Your task to perform on an android device: Search for the best rated mechanical keyboard on Amazon. Image 0: 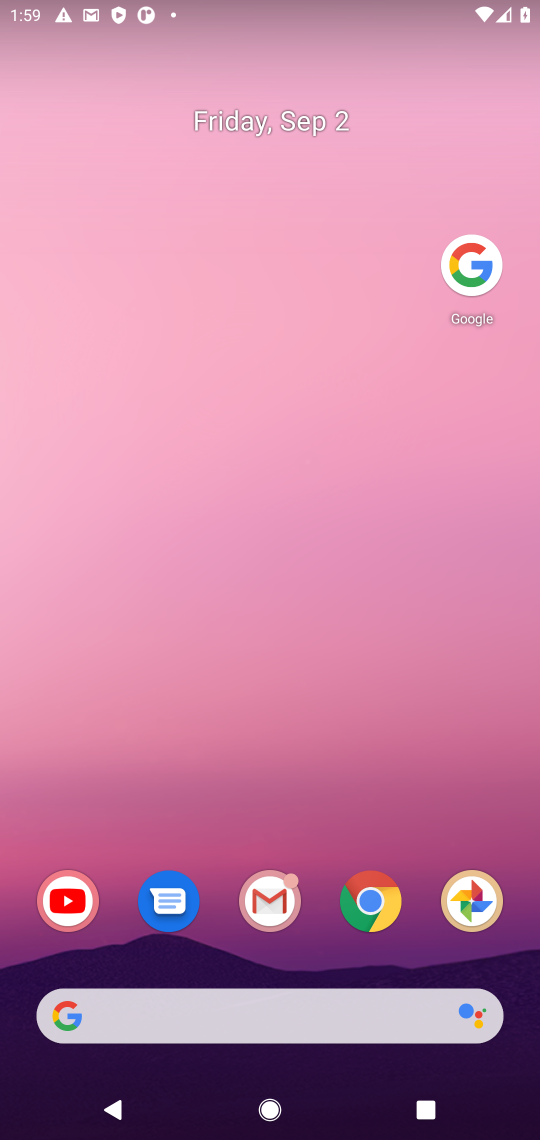
Step 0: drag from (317, 972) to (340, 256)
Your task to perform on an android device: Search for the best rated mechanical keyboard on Amazon. Image 1: 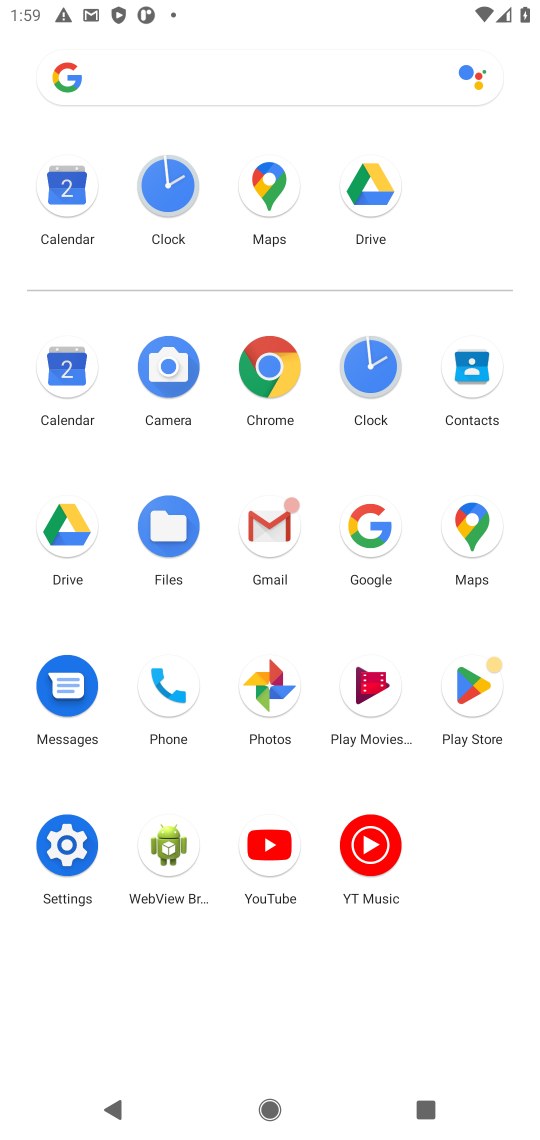
Step 1: click (376, 523)
Your task to perform on an android device: Search for the best rated mechanical keyboard on Amazon. Image 2: 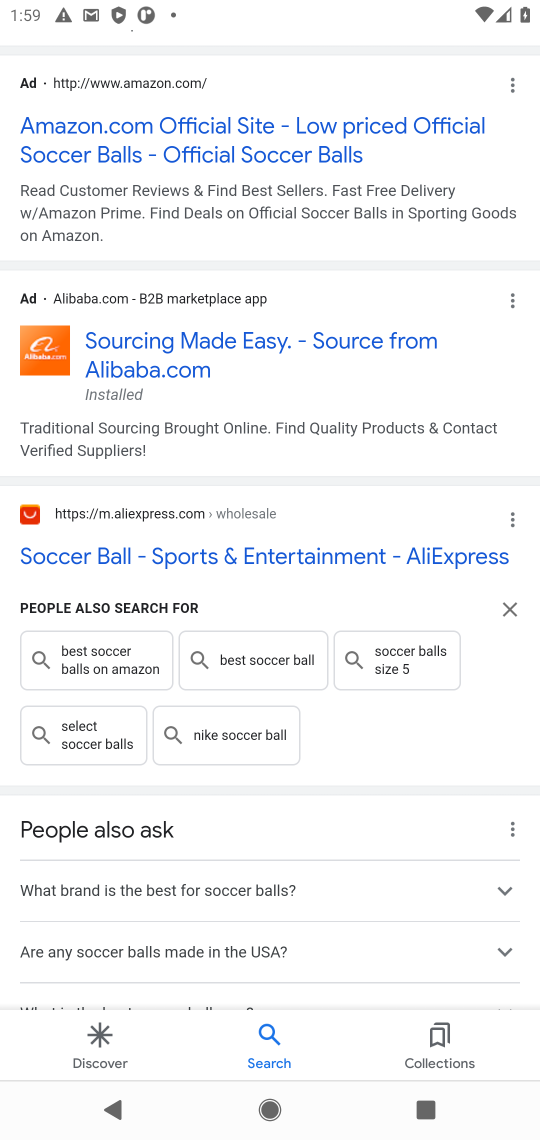
Step 2: press home button
Your task to perform on an android device: Search for the best rated mechanical keyboard on Amazon. Image 3: 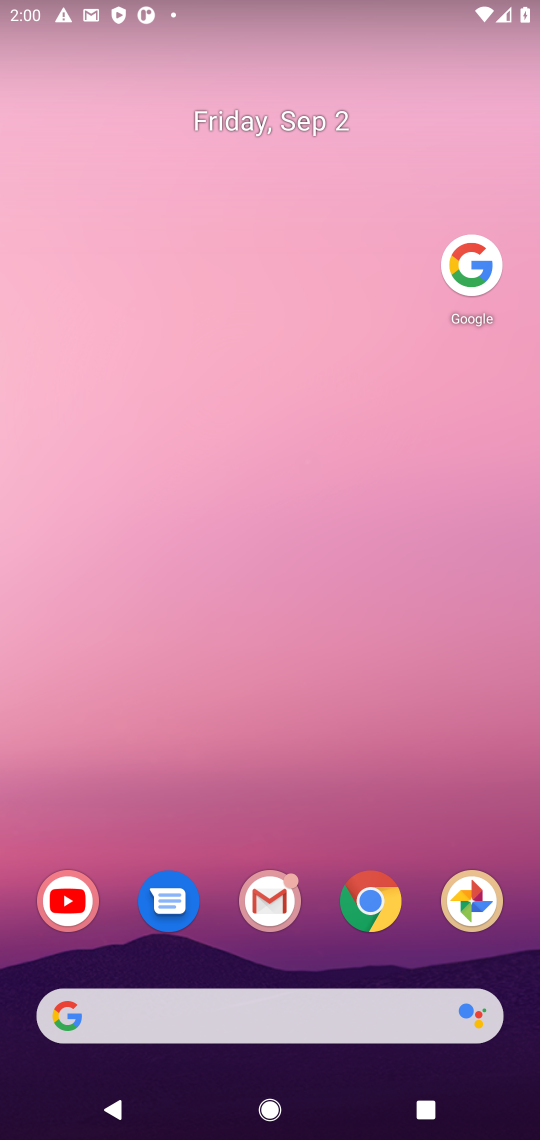
Step 3: click (220, 155)
Your task to perform on an android device: Search for the best rated mechanical keyboard on Amazon. Image 4: 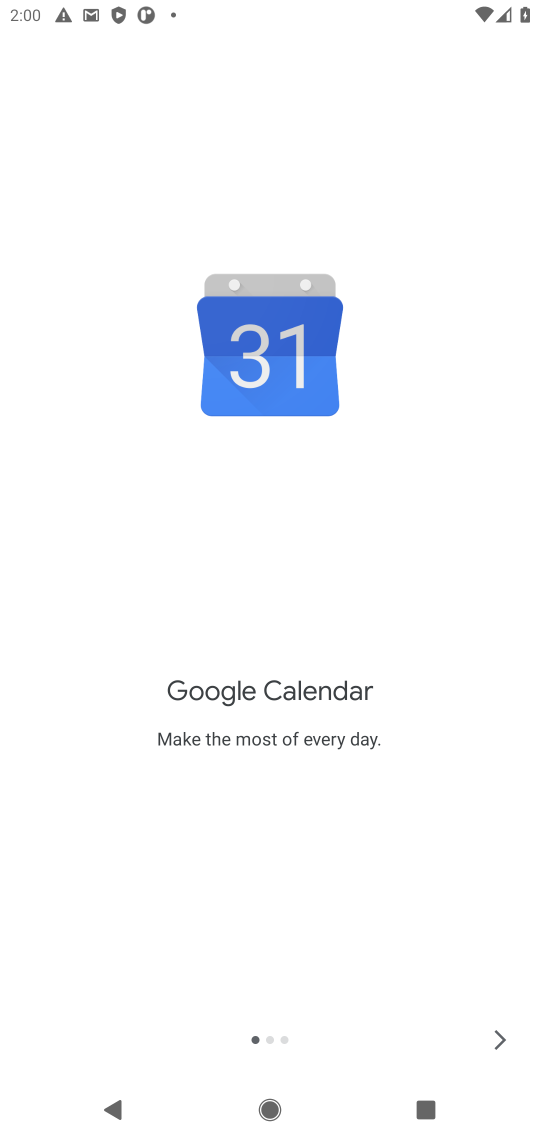
Step 4: press home button
Your task to perform on an android device: Search for the best rated mechanical keyboard on Amazon. Image 5: 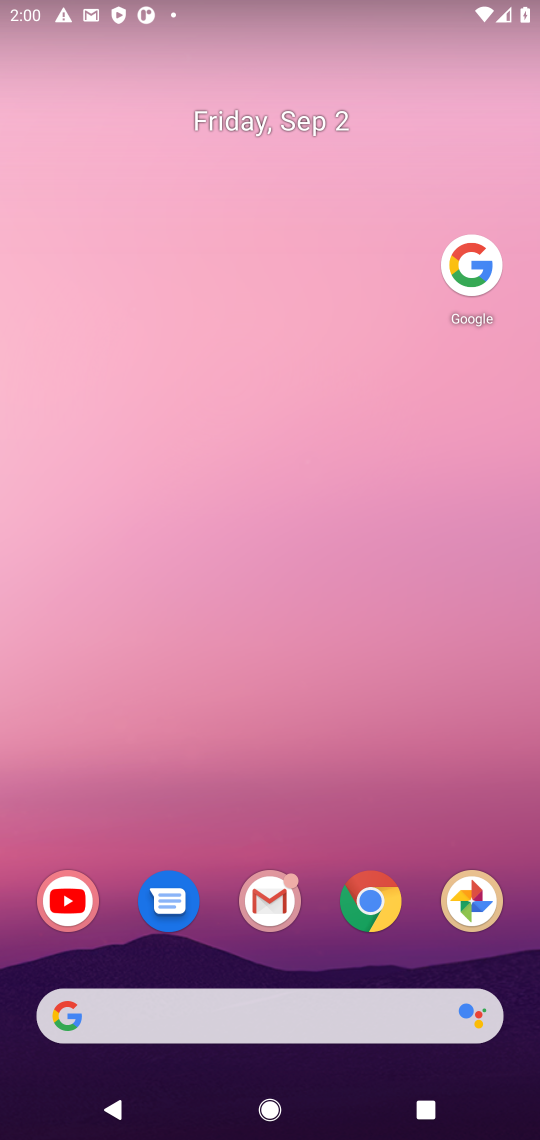
Step 5: drag from (230, 979) to (265, 220)
Your task to perform on an android device: Search for the best rated mechanical keyboard on Amazon. Image 6: 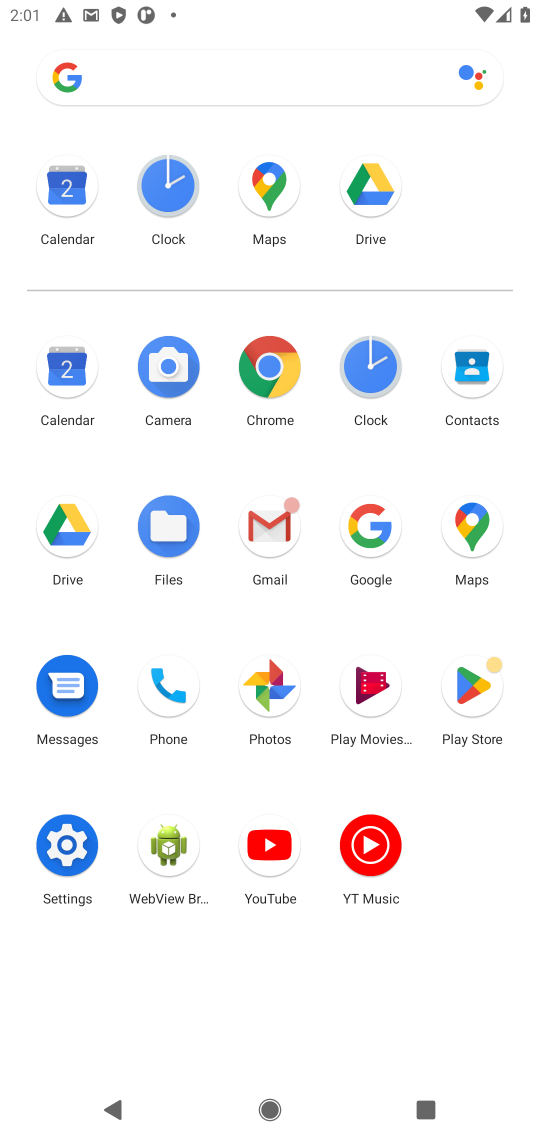
Step 6: click (358, 523)
Your task to perform on an android device: Search for the best rated mechanical keyboard on Amazon. Image 7: 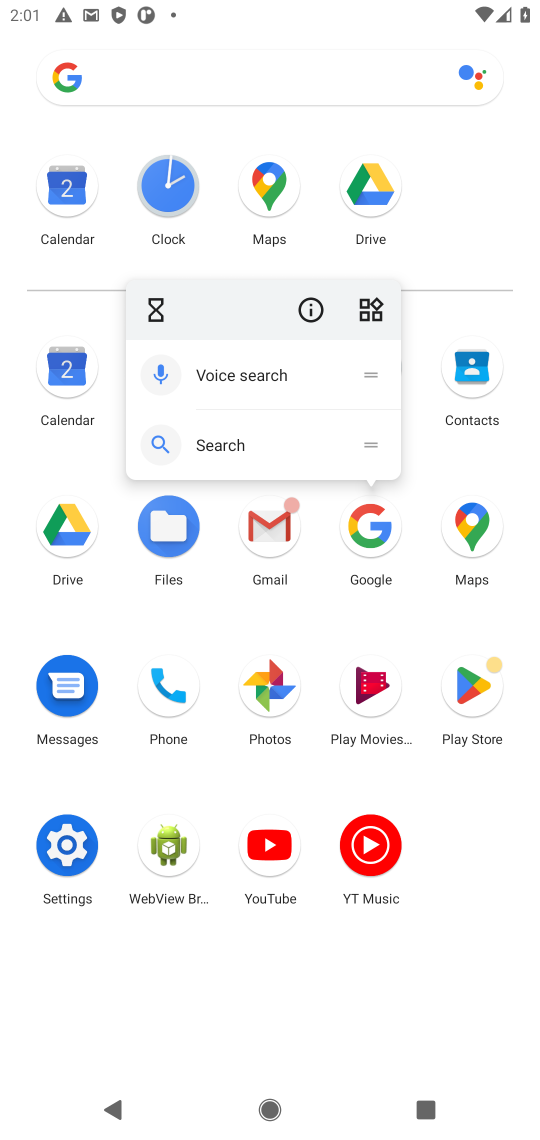
Step 7: click (379, 543)
Your task to perform on an android device: Search for the best rated mechanical keyboard on Amazon. Image 8: 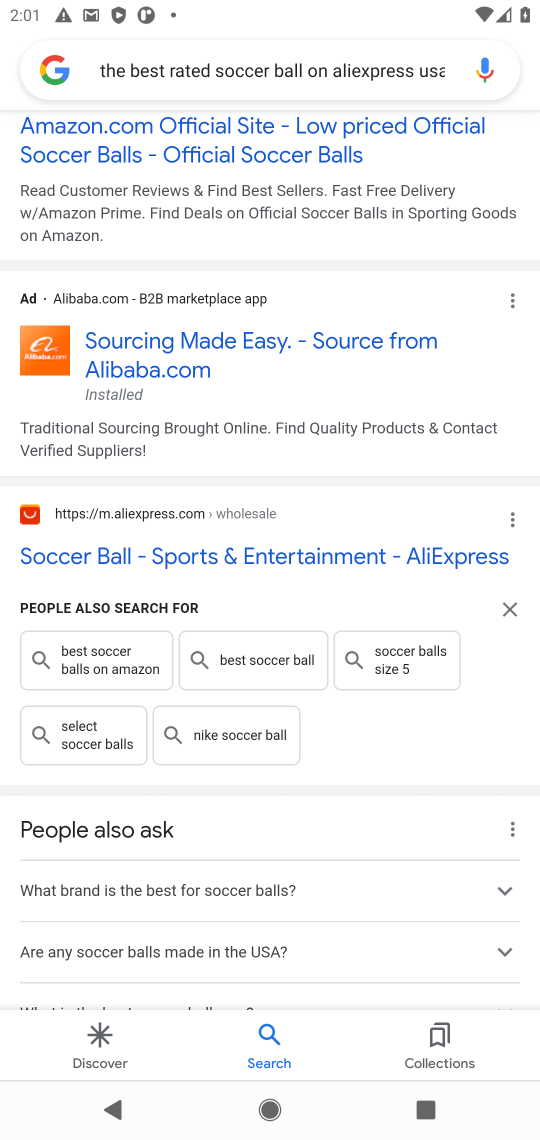
Step 8: drag from (317, 567) to (313, 964)
Your task to perform on an android device: Search for the best rated mechanical keyboard on Amazon. Image 9: 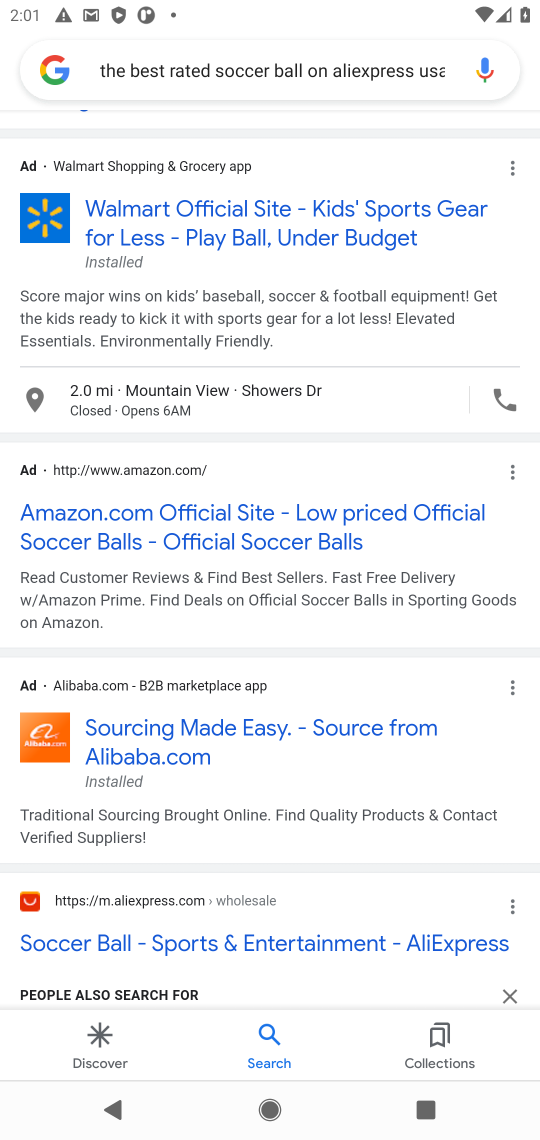
Step 9: click (408, 77)
Your task to perform on an android device: Search for the best rated mechanical keyboard on Amazon. Image 10: 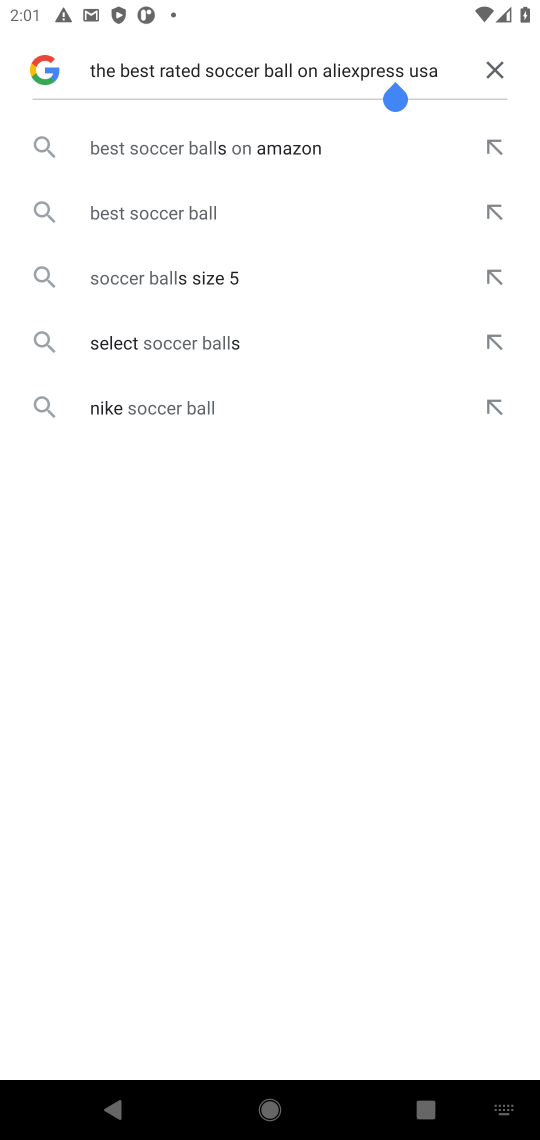
Step 10: click (504, 66)
Your task to perform on an android device: Search for the best rated mechanical keyboard on Amazon. Image 11: 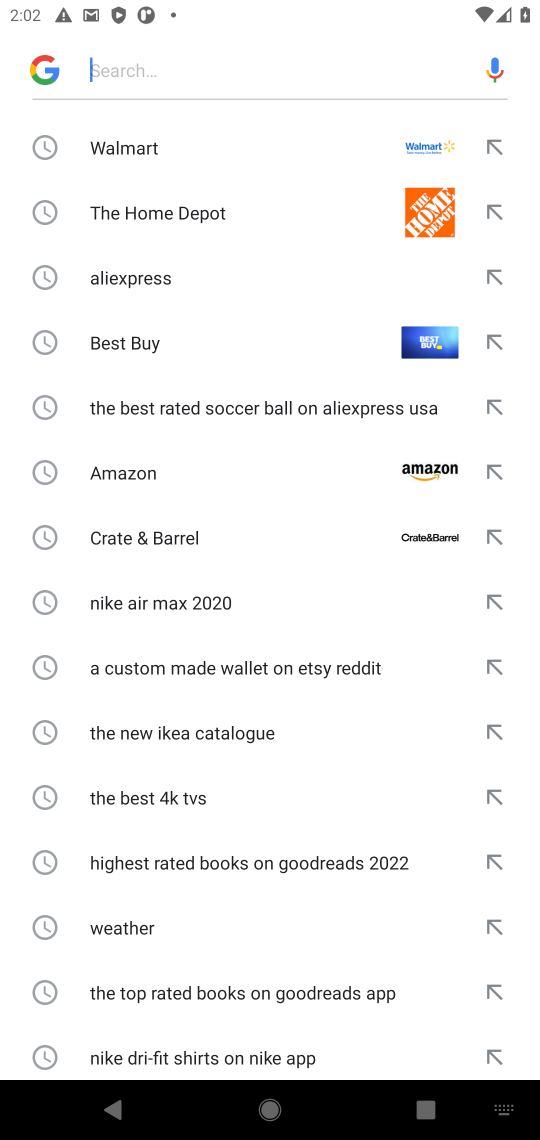
Step 11: click (242, 62)
Your task to perform on an android device: Search for the best rated mechanical keyboard on Amazon. Image 12: 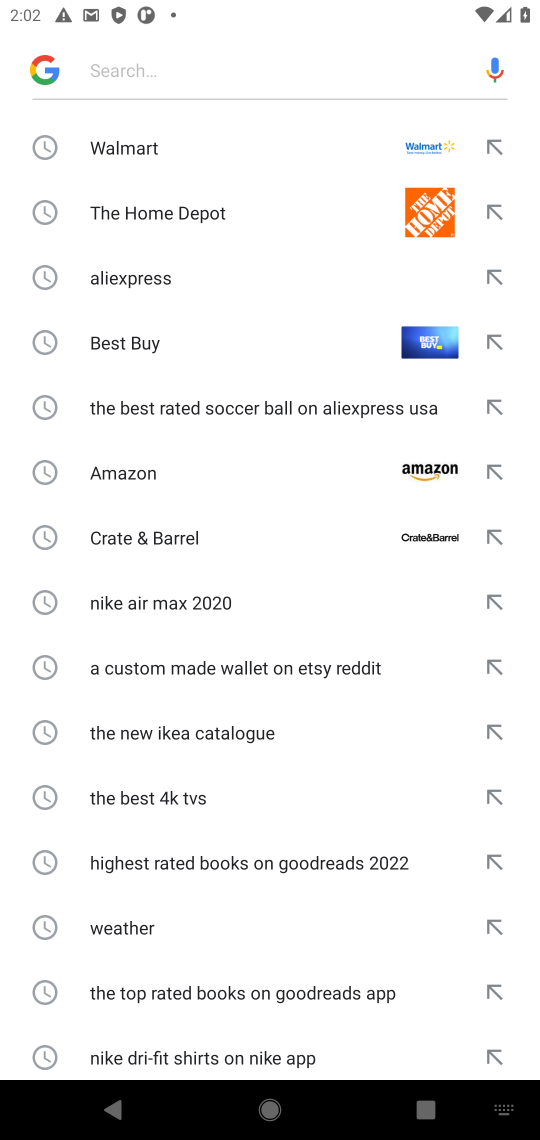
Step 12: type " the best rated mechanical keyboard on Amazon "
Your task to perform on an android device: Search for the best rated mechanical keyboard on Amazon. Image 13: 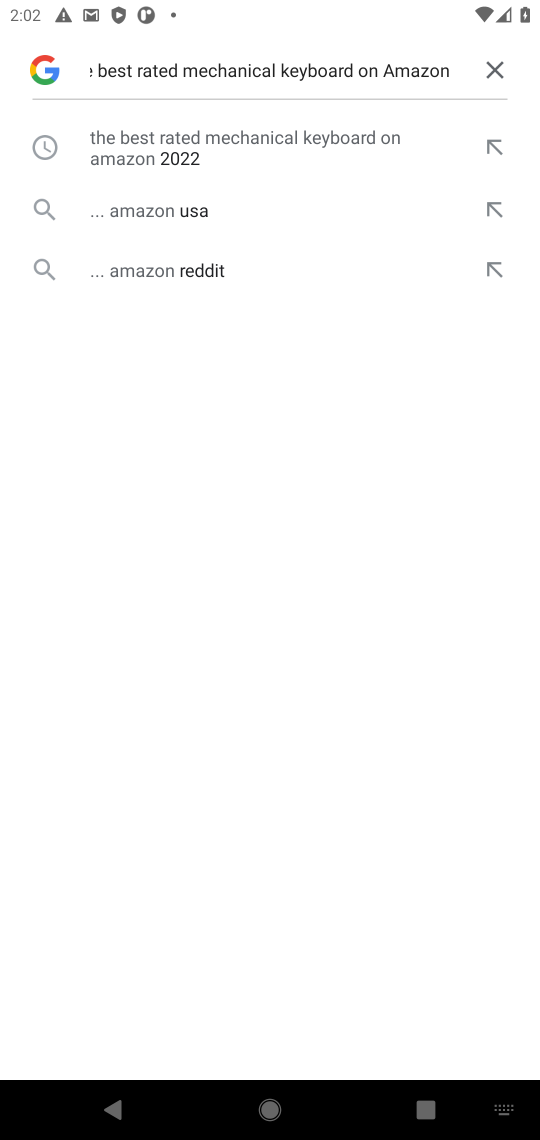
Step 13: click (182, 244)
Your task to perform on an android device: Search for the best rated mechanical keyboard on Amazon. Image 14: 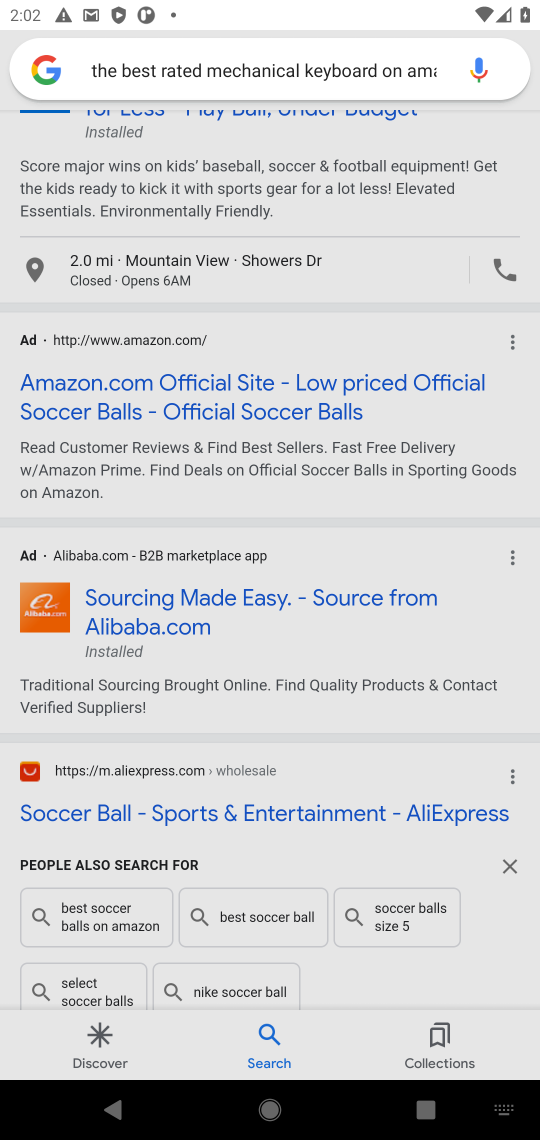
Step 14: click (182, 228)
Your task to perform on an android device: Search for the best rated mechanical keyboard on Amazon. Image 15: 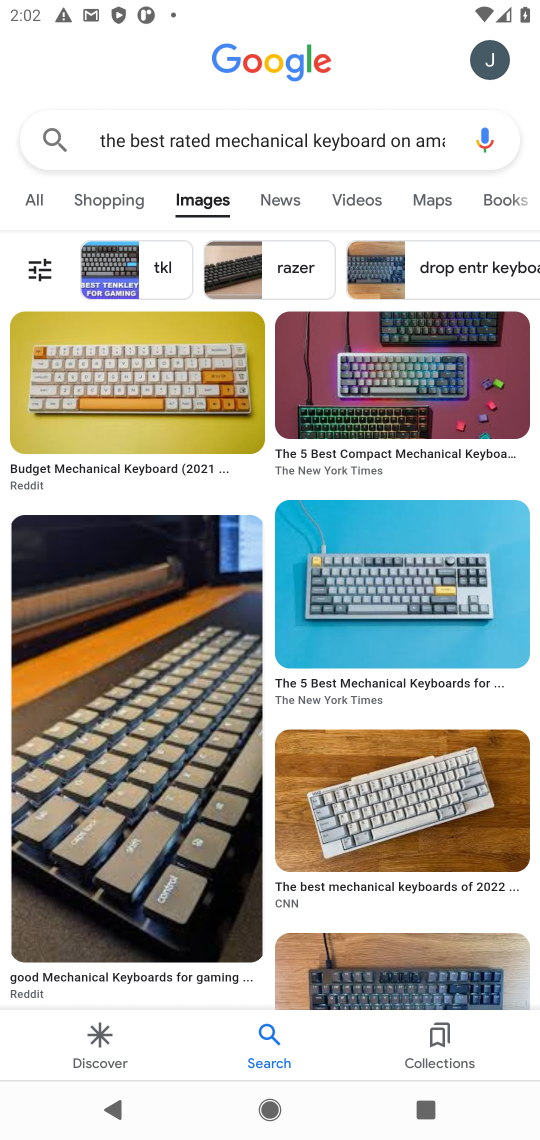
Step 15: task complete